Your task to perform on an android device: add a contact in the contacts app Image 0: 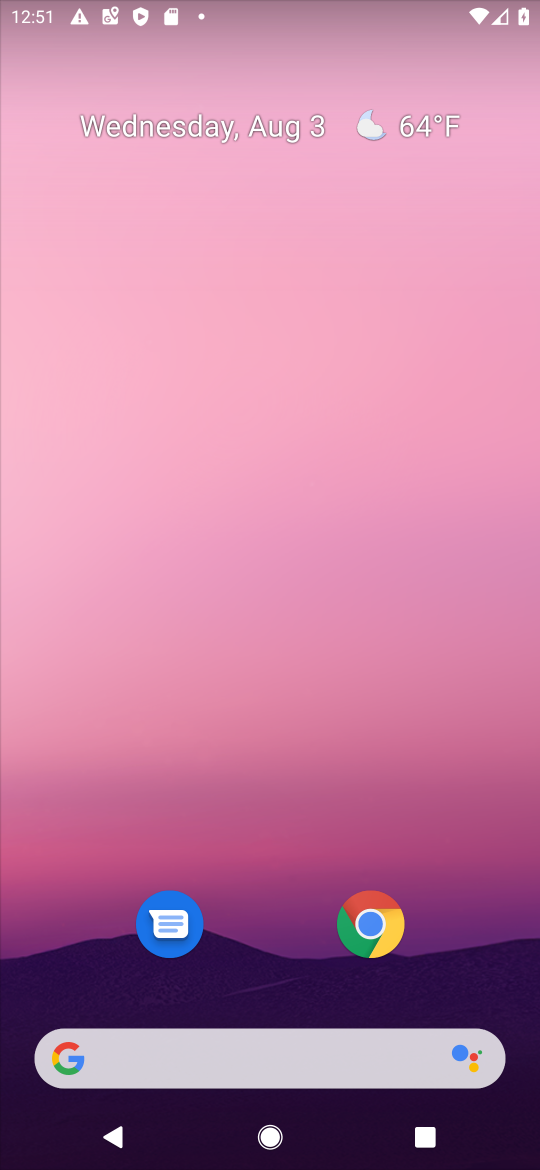
Step 0: drag from (229, 872) to (254, 56)
Your task to perform on an android device: add a contact in the contacts app Image 1: 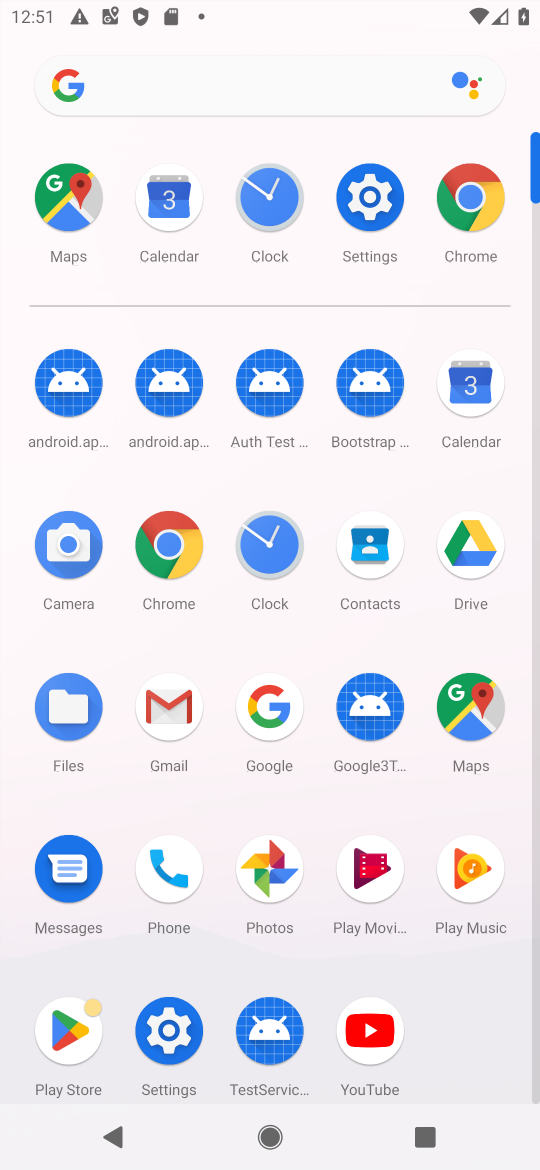
Step 1: click (388, 557)
Your task to perform on an android device: add a contact in the contacts app Image 2: 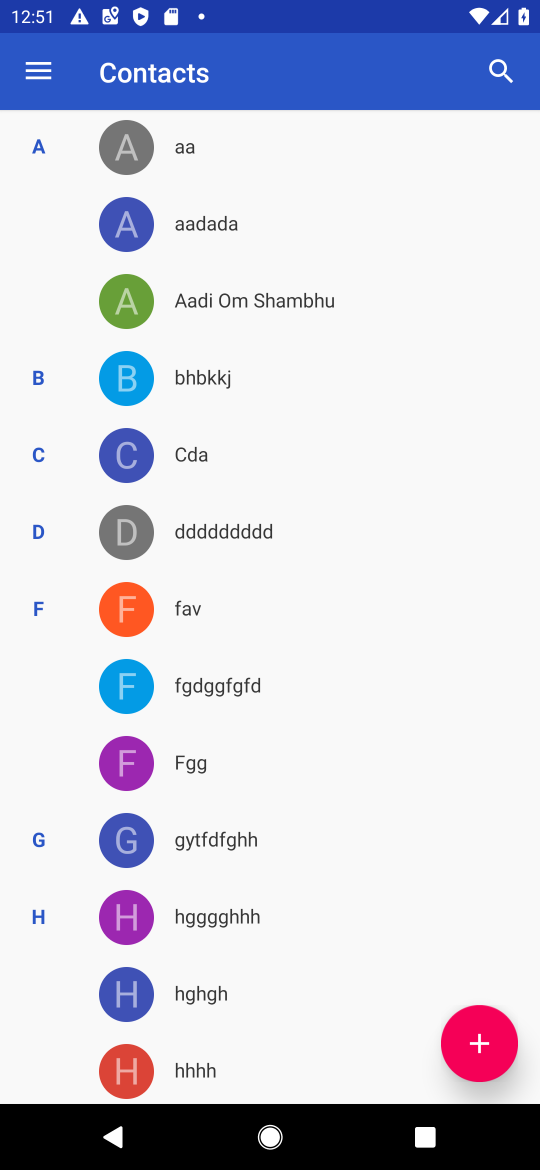
Step 2: click (494, 1040)
Your task to perform on an android device: add a contact in the contacts app Image 3: 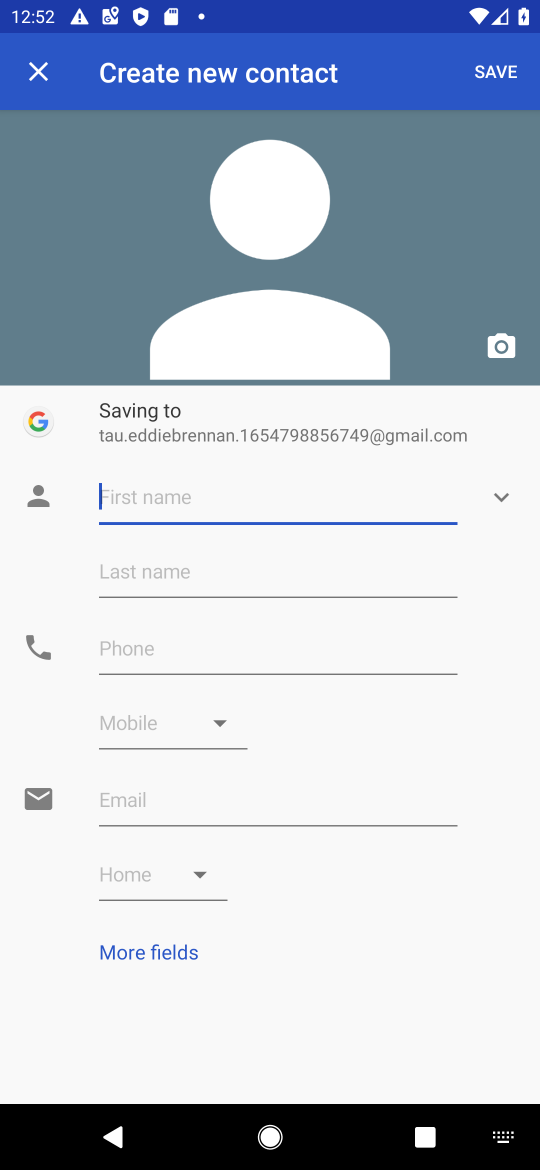
Step 3: click (215, 505)
Your task to perform on an android device: add a contact in the contacts app Image 4: 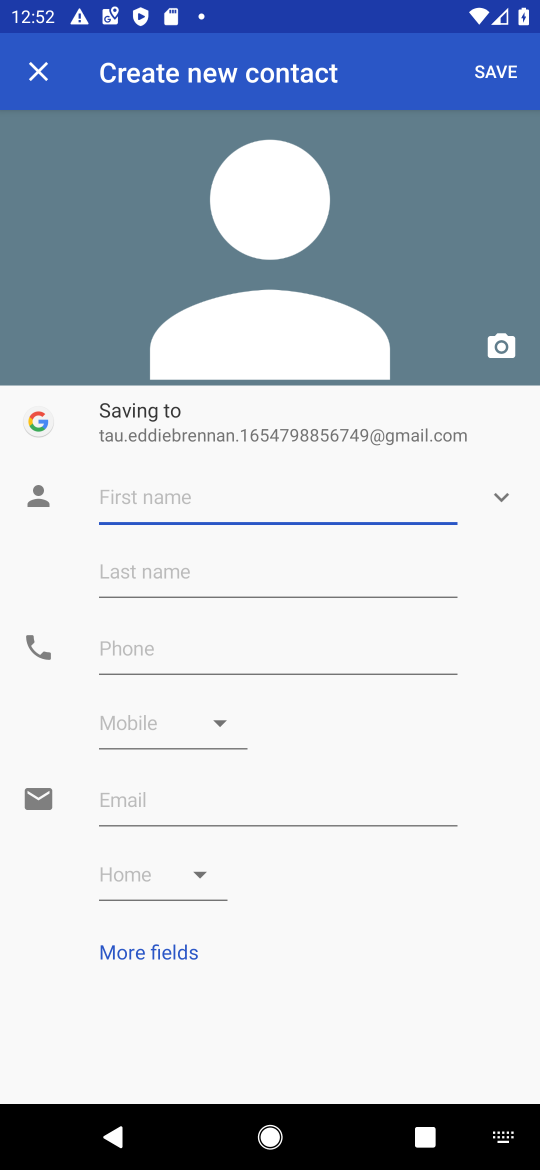
Step 4: type "vgvgv"
Your task to perform on an android device: add a contact in the contacts app Image 5: 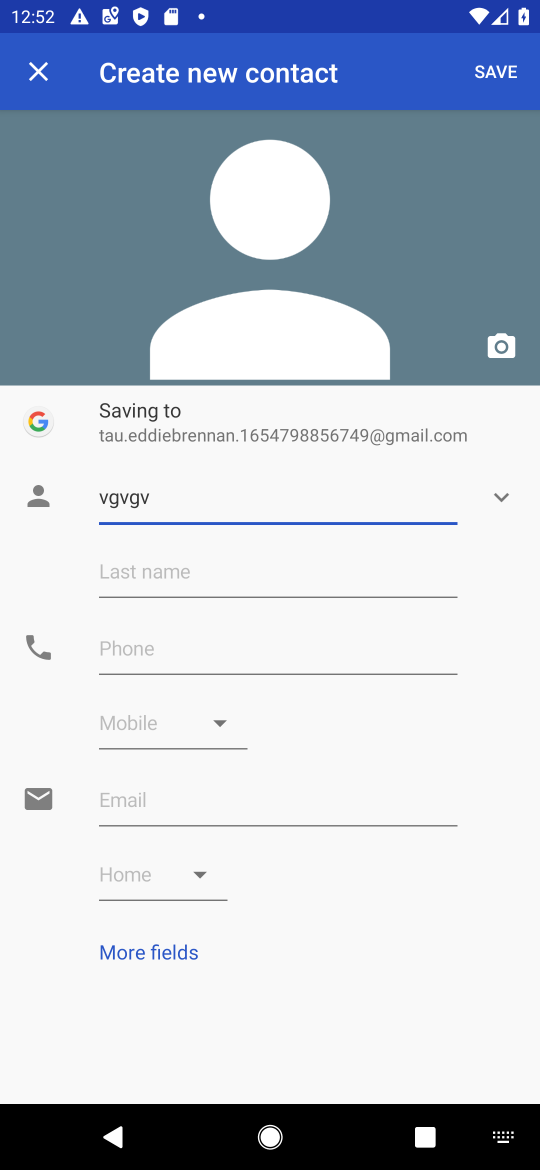
Step 5: click (245, 648)
Your task to perform on an android device: add a contact in the contacts app Image 6: 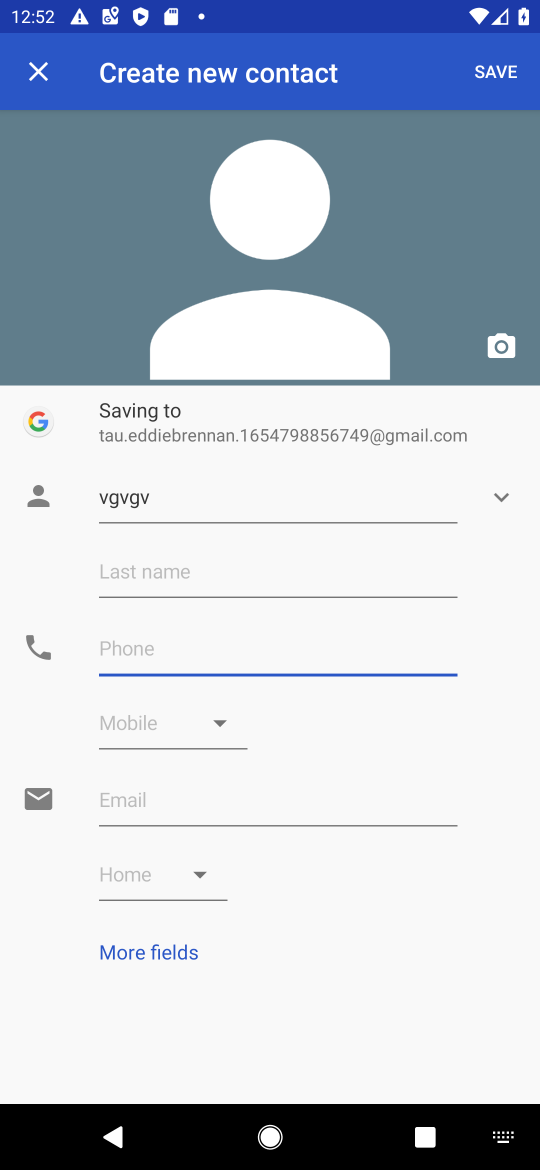
Step 6: type "7676"
Your task to perform on an android device: add a contact in the contacts app Image 7: 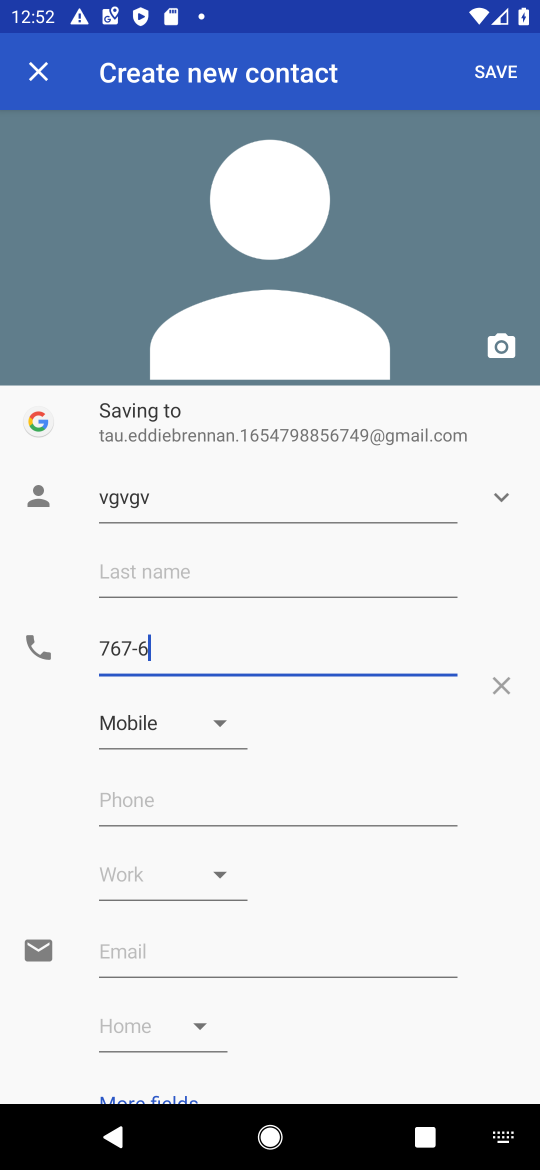
Step 7: click (486, 79)
Your task to perform on an android device: add a contact in the contacts app Image 8: 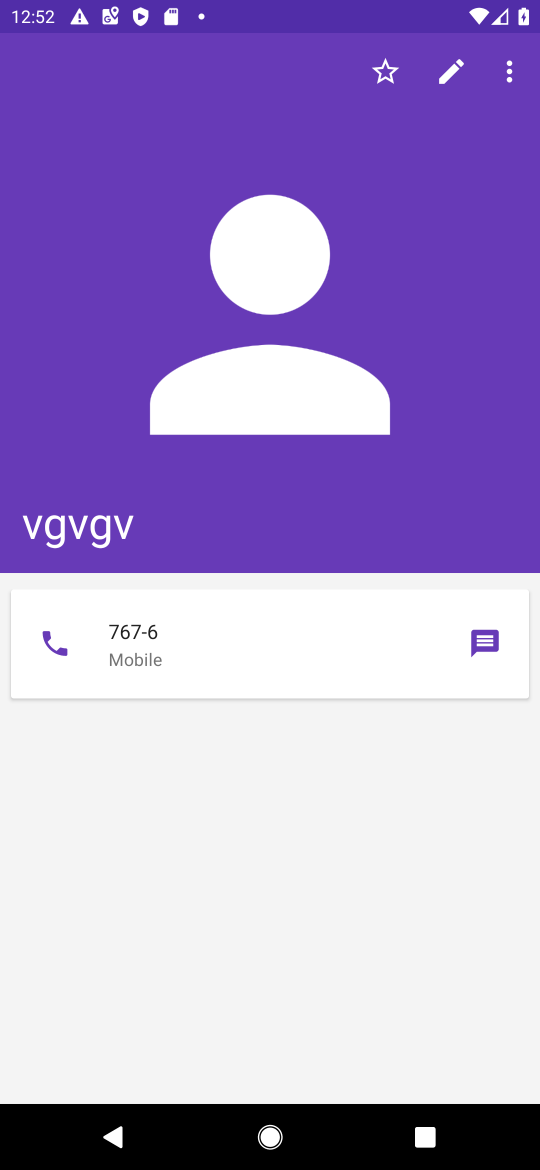
Step 8: task complete